Your task to perform on an android device: Go to privacy settings Image 0: 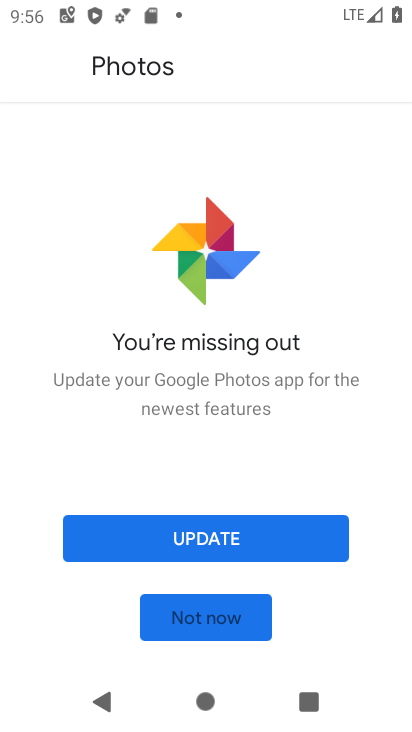
Step 0: press home button
Your task to perform on an android device: Go to privacy settings Image 1: 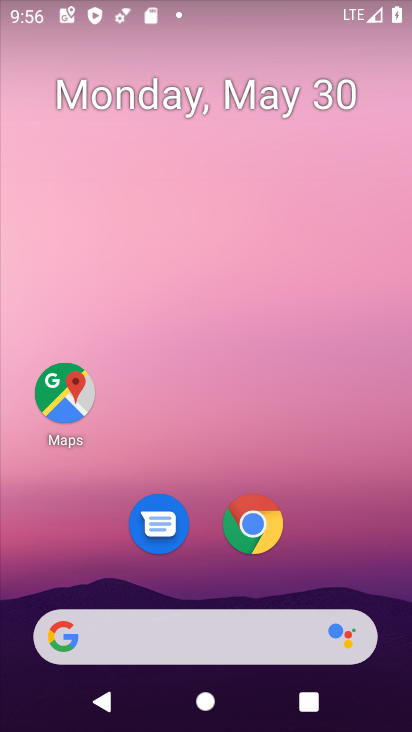
Step 1: drag from (332, 526) to (308, 29)
Your task to perform on an android device: Go to privacy settings Image 2: 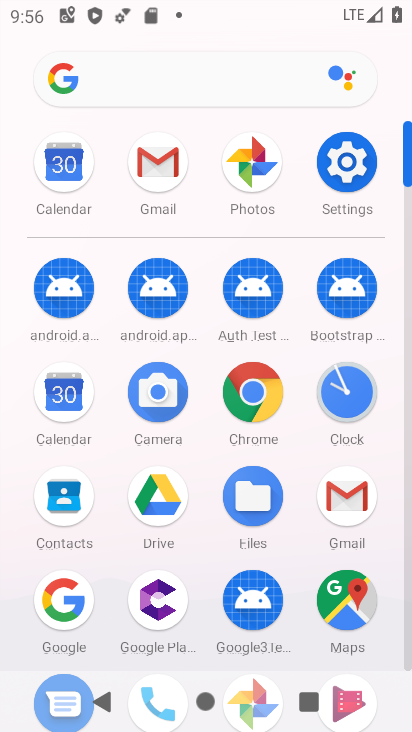
Step 2: click (344, 169)
Your task to perform on an android device: Go to privacy settings Image 3: 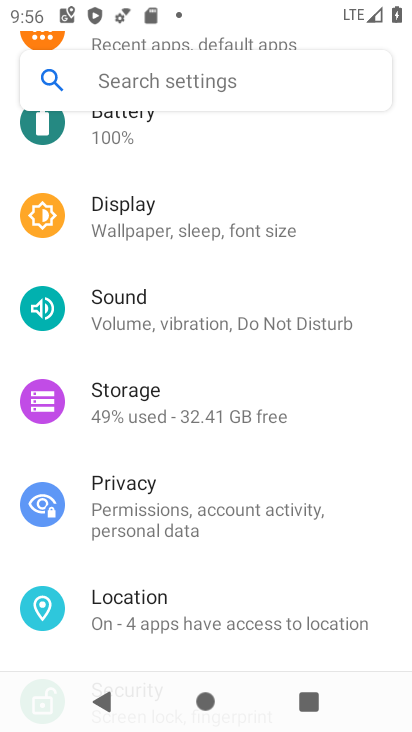
Step 3: click (226, 493)
Your task to perform on an android device: Go to privacy settings Image 4: 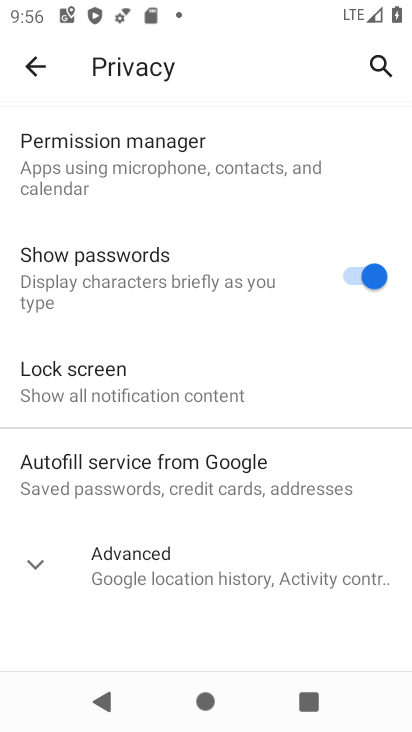
Step 4: task complete